Your task to perform on an android device: turn on airplane mode Image 0: 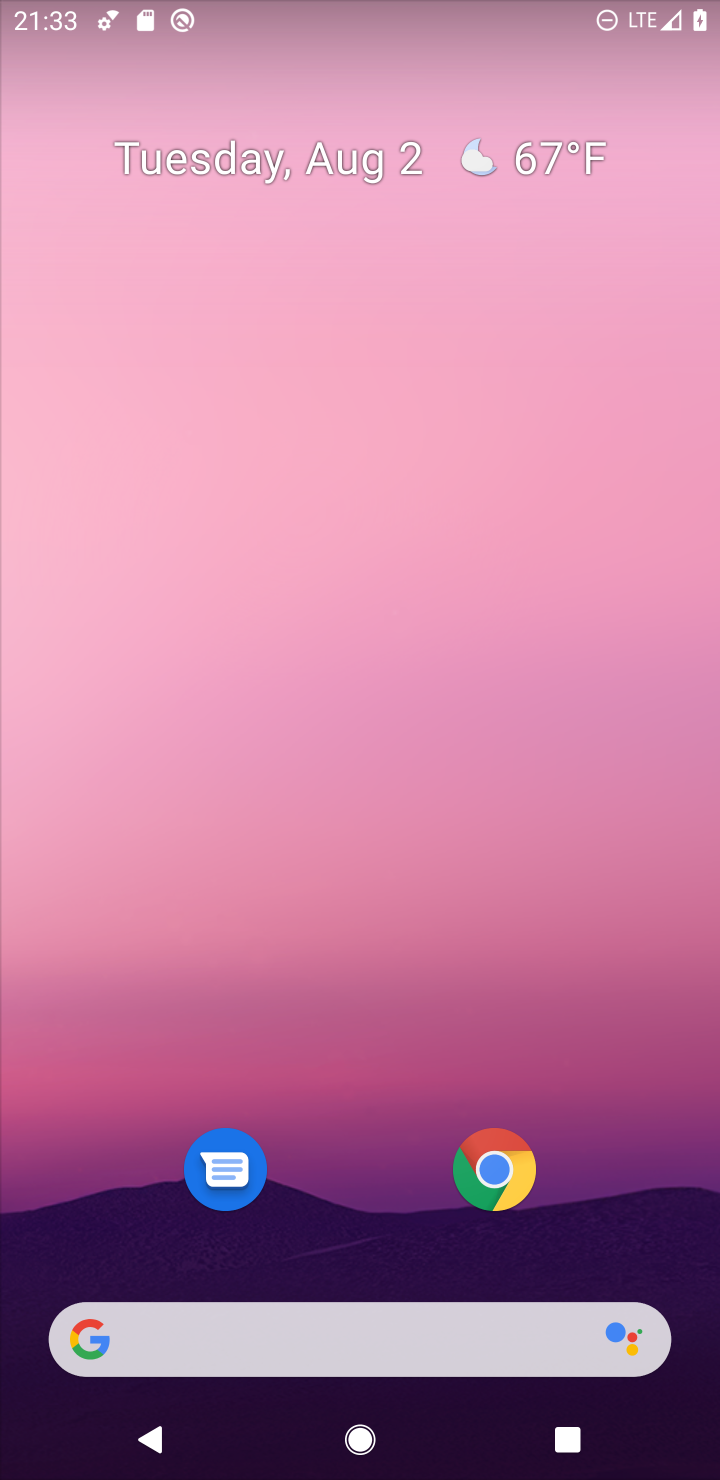
Step 0: drag from (370, 1168) to (368, 490)
Your task to perform on an android device: turn on airplane mode Image 1: 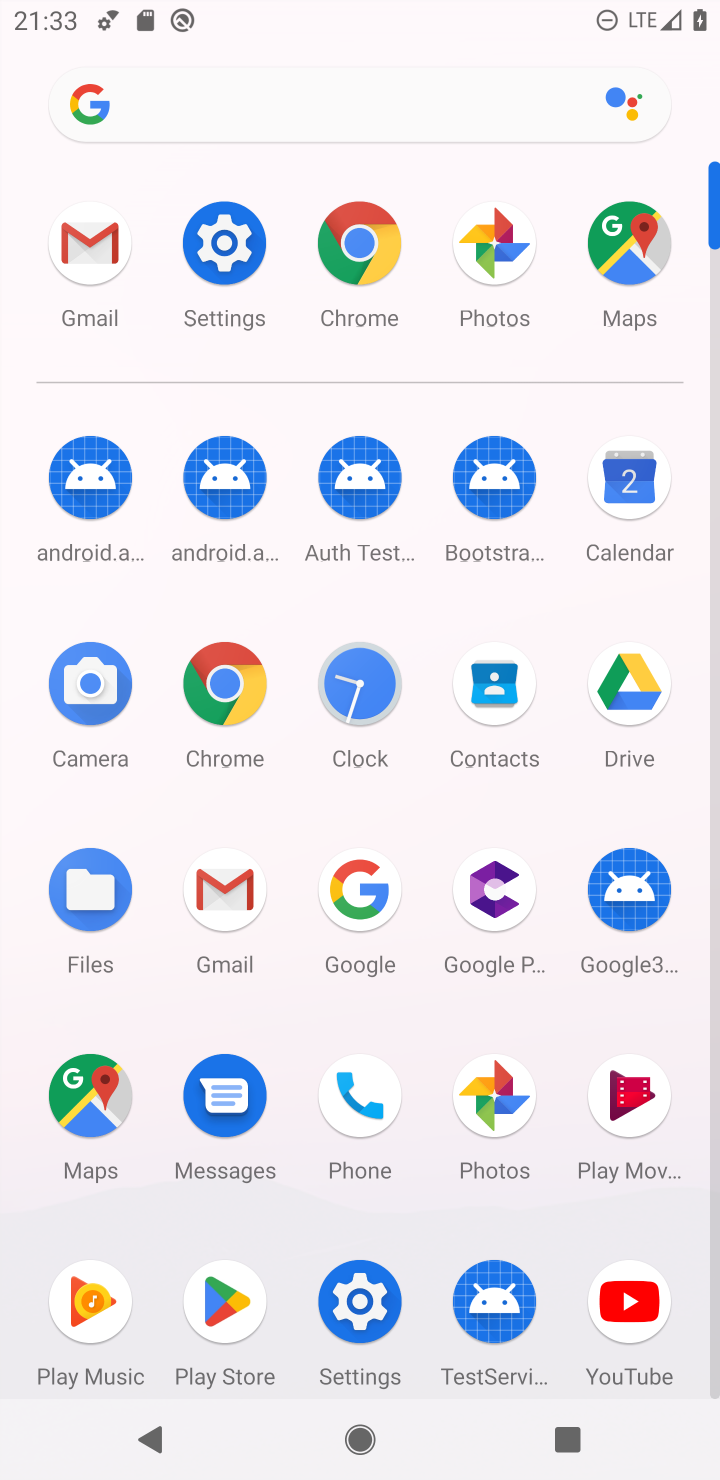
Step 1: click (208, 229)
Your task to perform on an android device: turn on airplane mode Image 2: 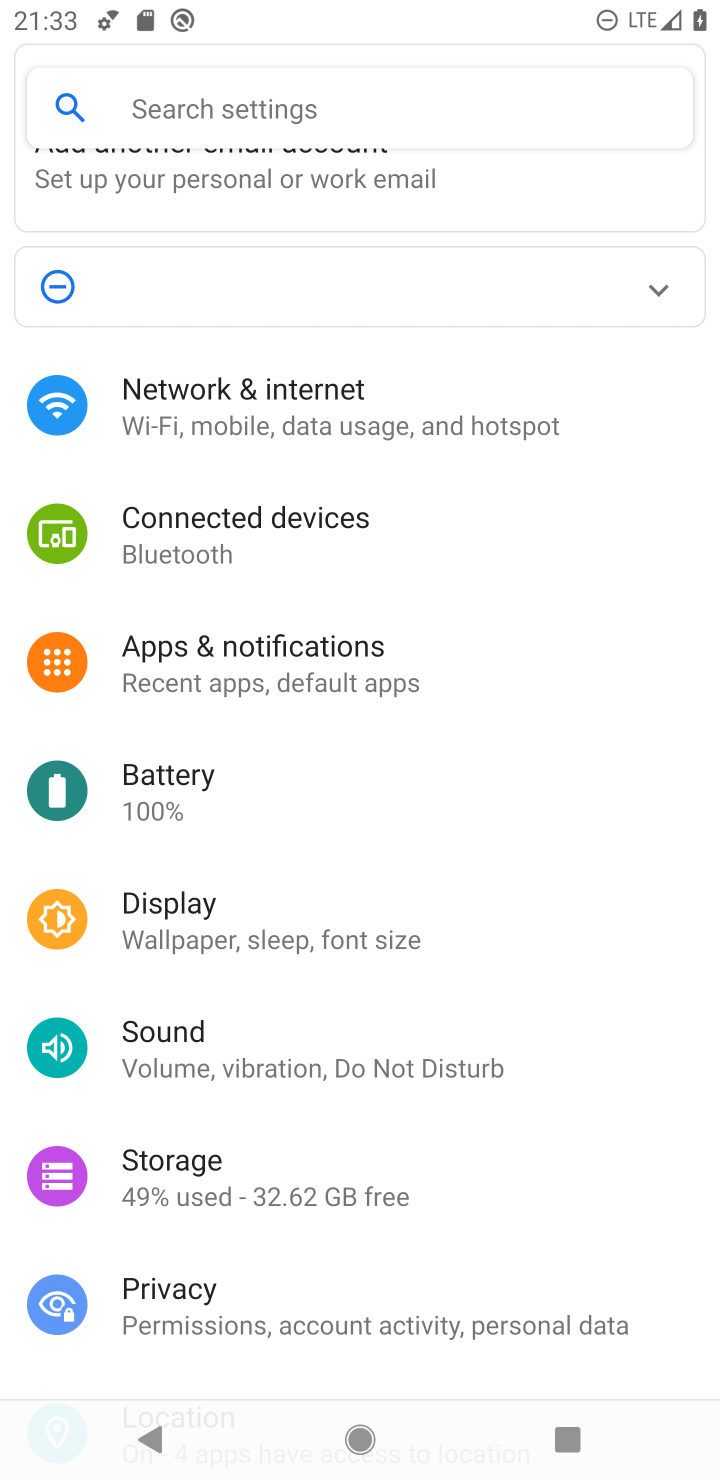
Step 2: click (155, 399)
Your task to perform on an android device: turn on airplane mode Image 3: 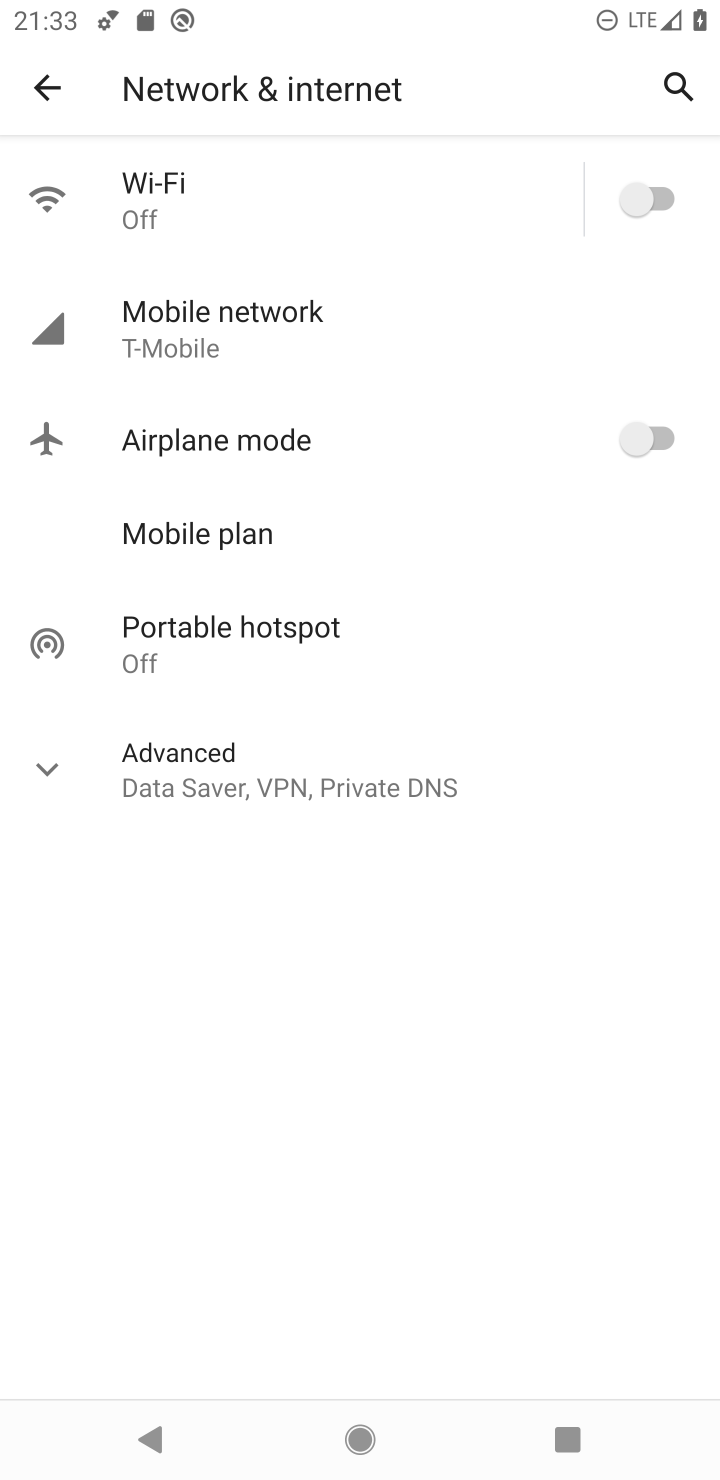
Step 3: click (664, 436)
Your task to perform on an android device: turn on airplane mode Image 4: 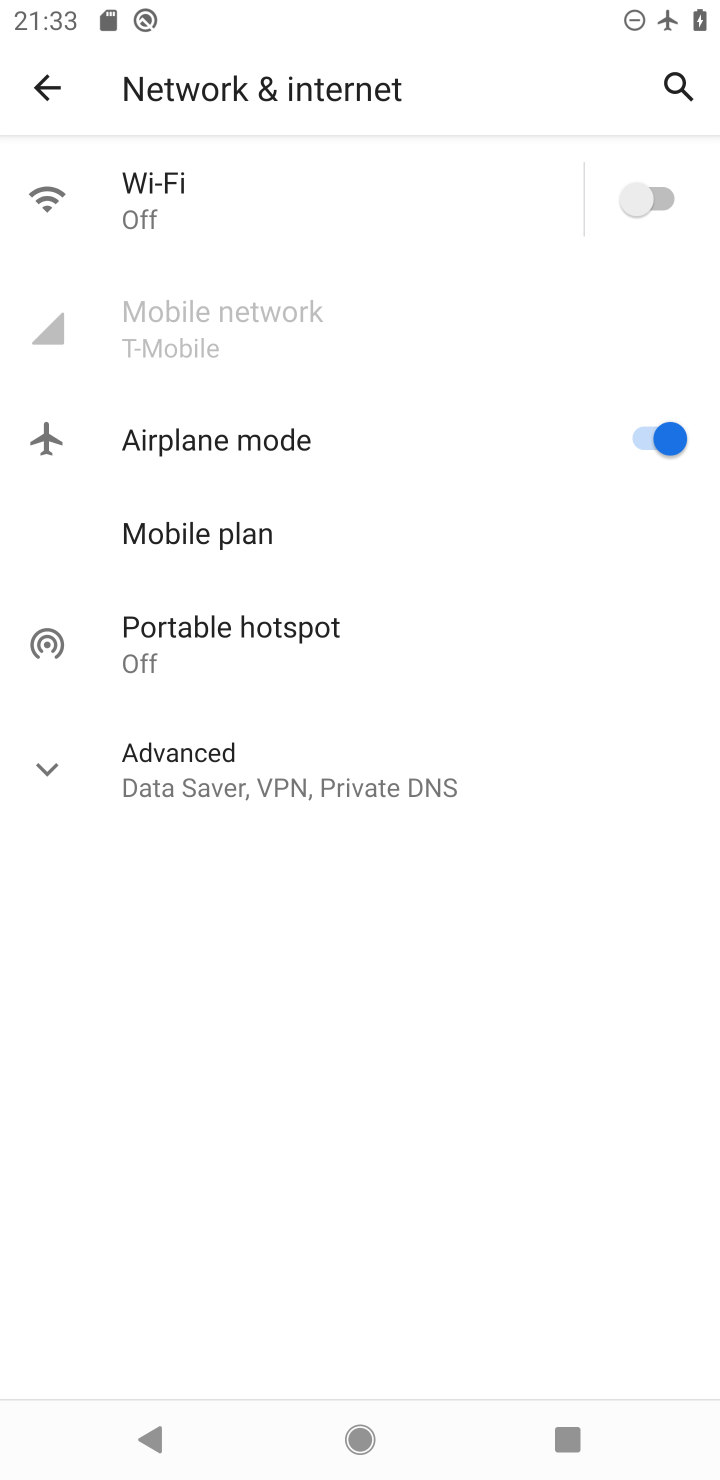
Step 4: task complete